Your task to perform on an android device: turn pop-ups off in chrome Image 0: 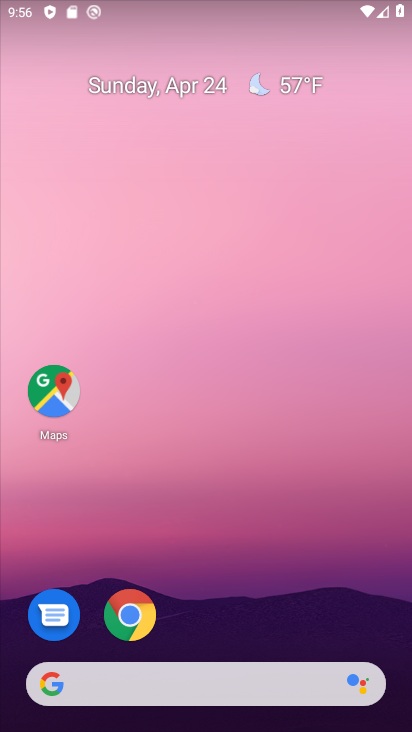
Step 0: click (129, 614)
Your task to perform on an android device: turn pop-ups off in chrome Image 1: 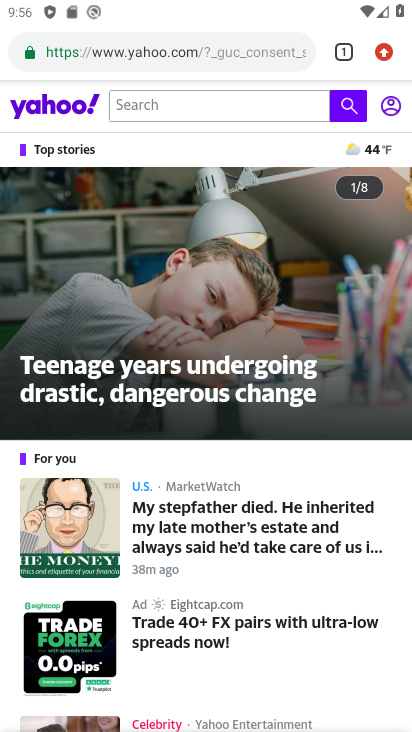
Step 1: click (382, 46)
Your task to perform on an android device: turn pop-ups off in chrome Image 2: 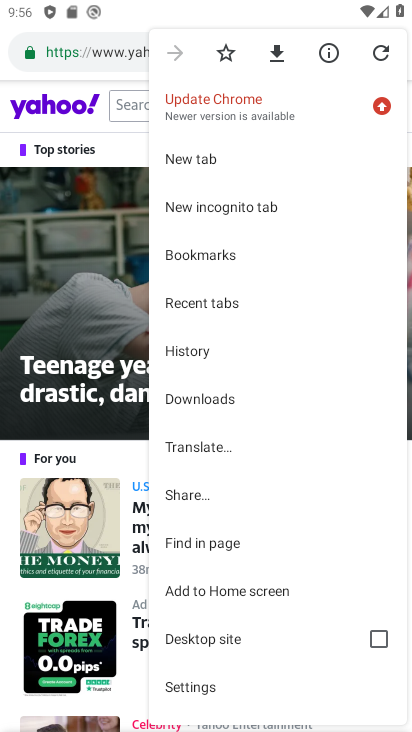
Step 2: drag from (311, 660) to (288, 391)
Your task to perform on an android device: turn pop-ups off in chrome Image 3: 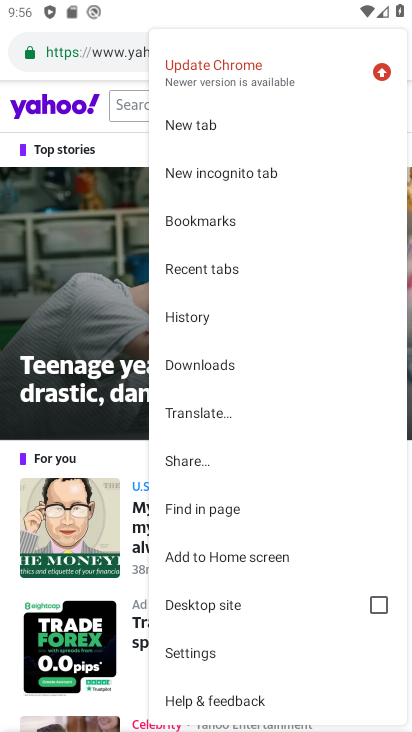
Step 3: click (178, 636)
Your task to perform on an android device: turn pop-ups off in chrome Image 4: 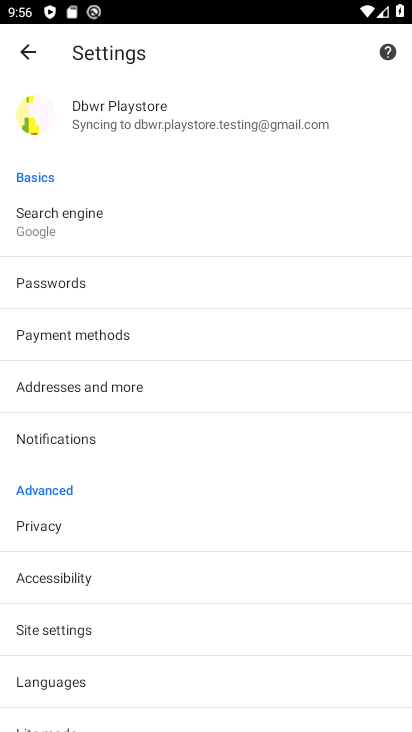
Step 4: drag from (197, 592) to (244, 266)
Your task to perform on an android device: turn pop-ups off in chrome Image 5: 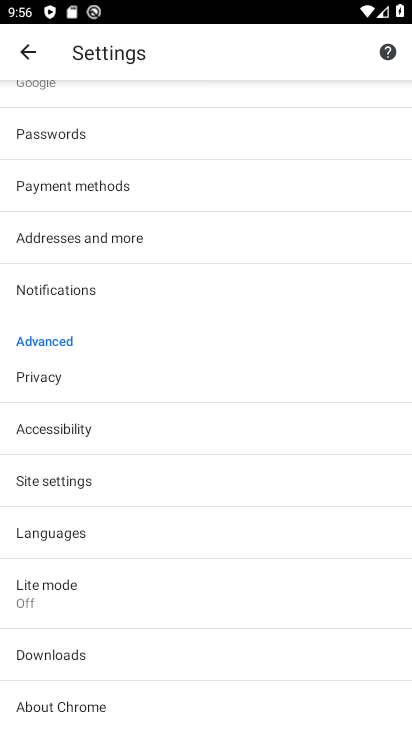
Step 5: click (37, 478)
Your task to perform on an android device: turn pop-ups off in chrome Image 6: 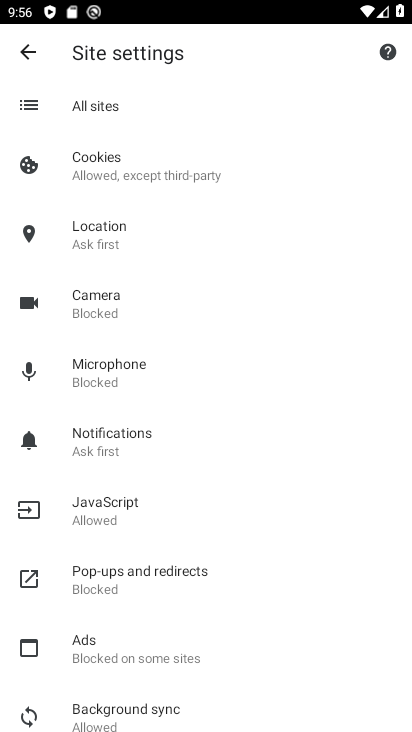
Step 6: click (108, 572)
Your task to perform on an android device: turn pop-ups off in chrome Image 7: 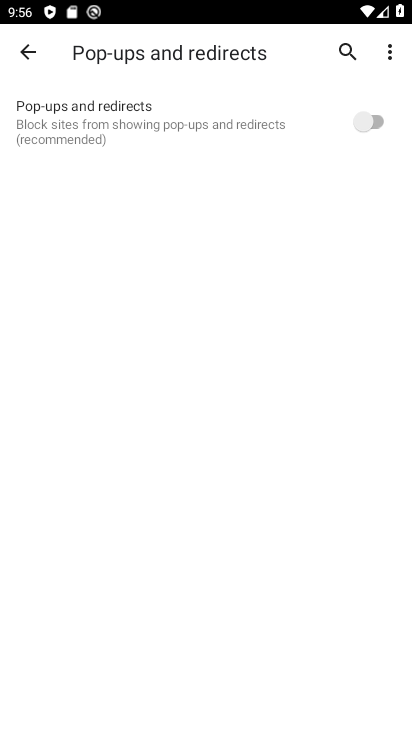
Step 7: task complete